Your task to perform on an android device: turn off smart reply in the gmail app Image 0: 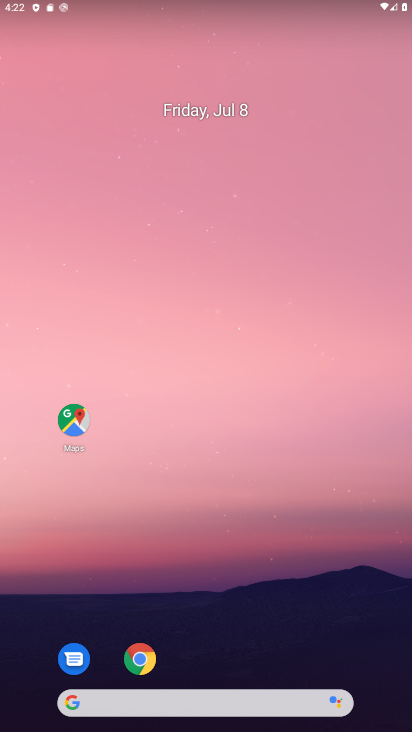
Step 0: drag from (334, 561) to (323, 92)
Your task to perform on an android device: turn off smart reply in the gmail app Image 1: 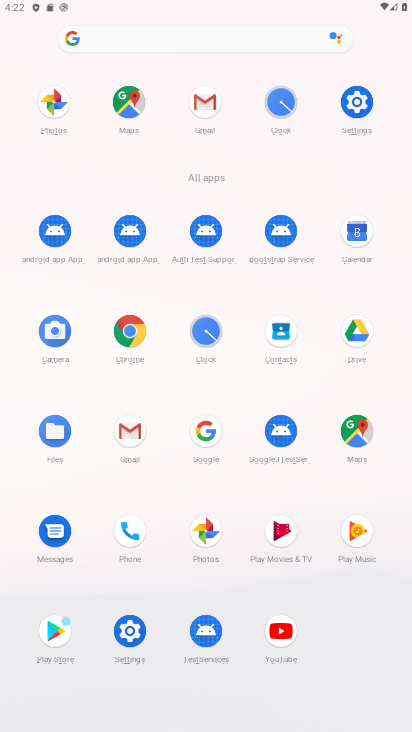
Step 1: click (201, 99)
Your task to perform on an android device: turn off smart reply in the gmail app Image 2: 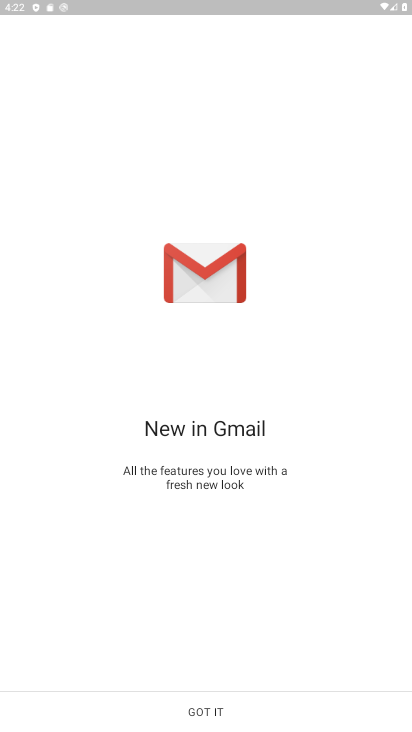
Step 2: click (220, 710)
Your task to perform on an android device: turn off smart reply in the gmail app Image 3: 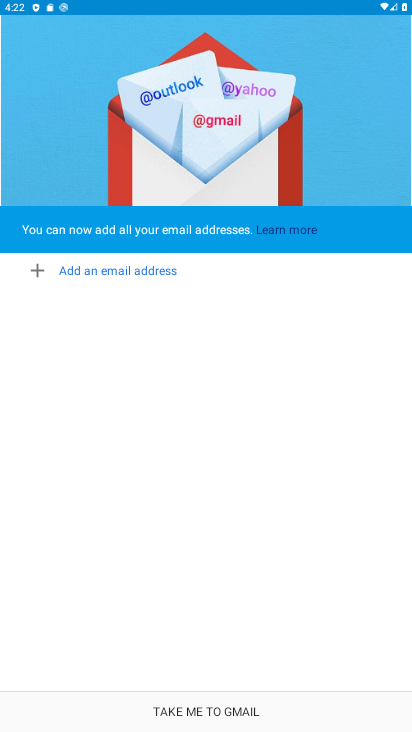
Step 3: click (207, 701)
Your task to perform on an android device: turn off smart reply in the gmail app Image 4: 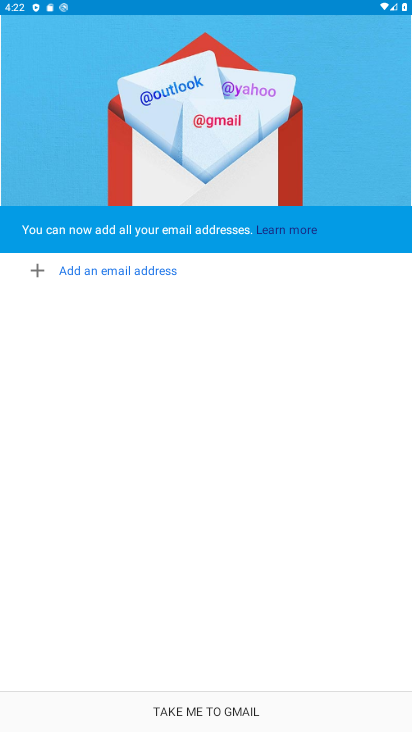
Step 4: click (207, 701)
Your task to perform on an android device: turn off smart reply in the gmail app Image 5: 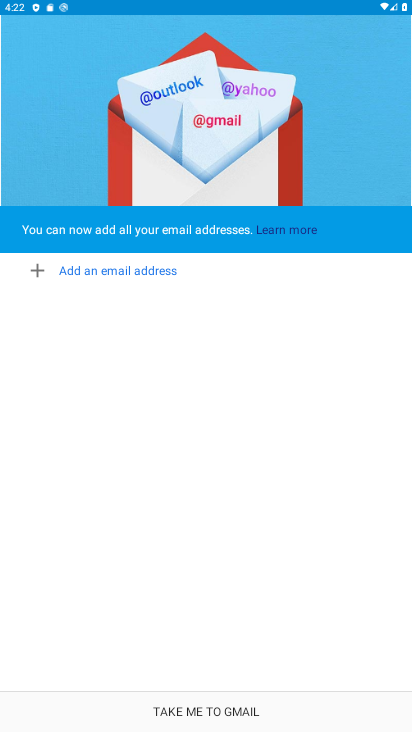
Step 5: click (246, 701)
Your task to perform on an android device: turn off smart reply in the gmail app Image 6: 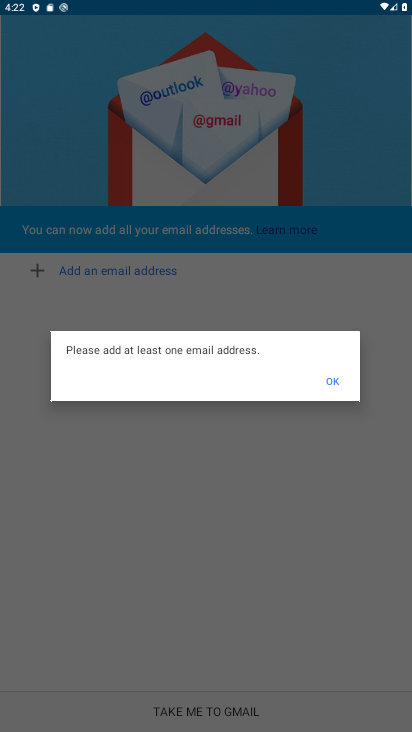
Step 6: click (334, 377)
Your task to perform on an android device: turn off smart reply in the gmail app Image 7: 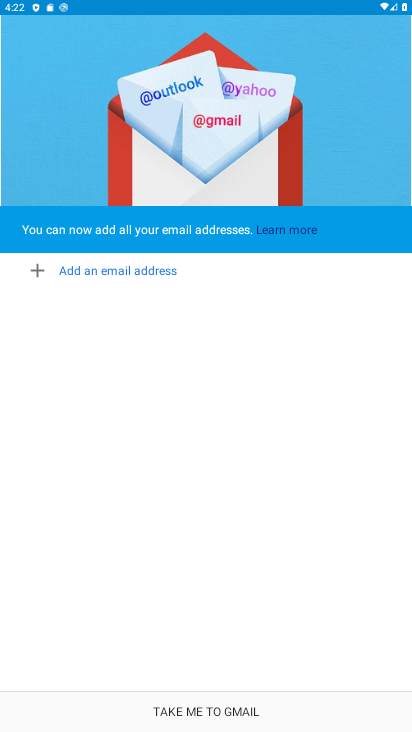
Step 7: task complete